Your task to perform on an android device: Go to Reddit.com Image 0: 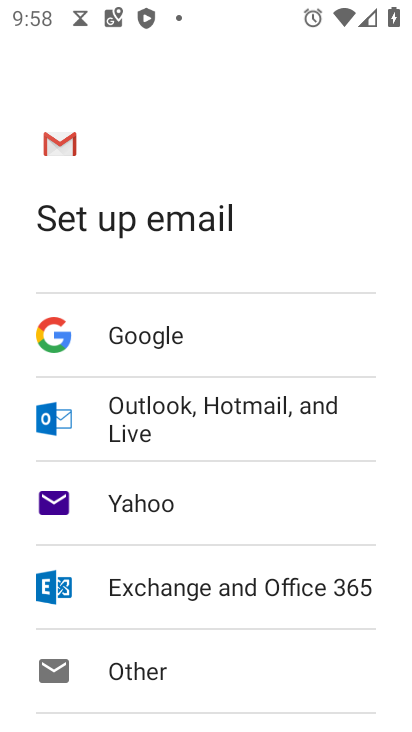
Step 0: press back button
Your task to perform on an android device: Go to Reddit.com Image 1: 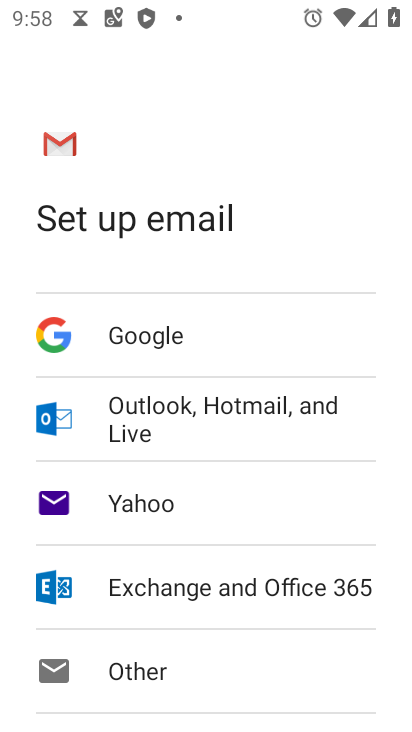
Step 1: press back button
Your task to perform on an android device: Go to Reddit.com Image 2: 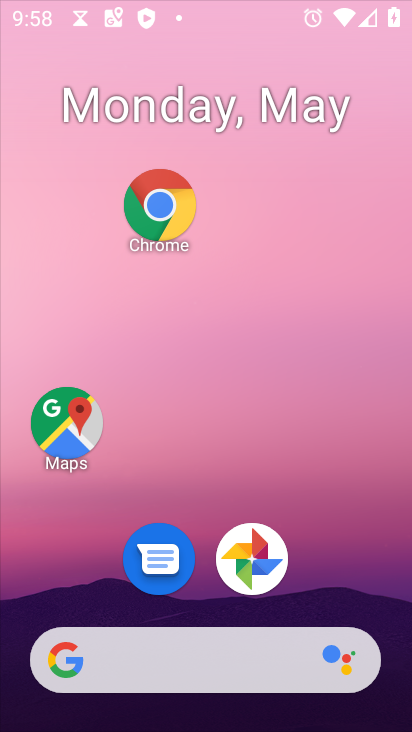
Step 2: press back button
Your task to perform on an android device: Go to Reddit.com Image 3: 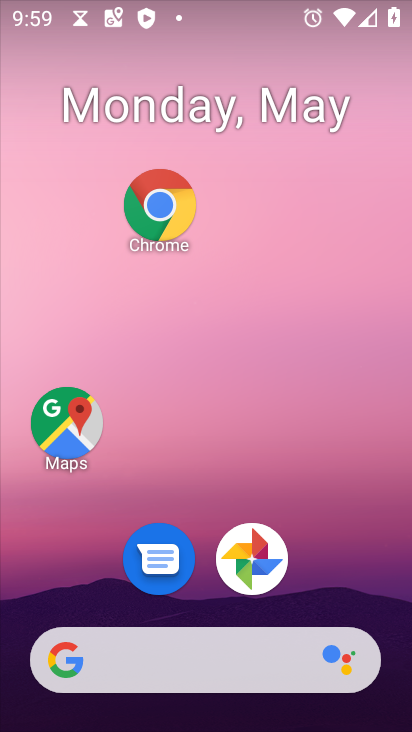
Step 3: drag from (285, 692) to (213, 90)
Your task to perform on an android device: Go to Reddit.com Image 4: 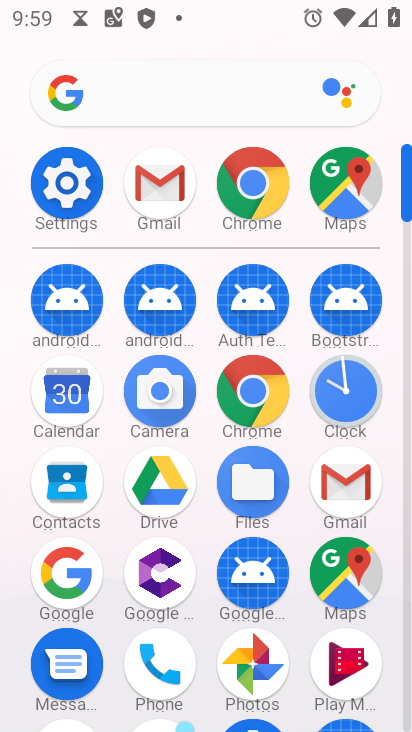
Step 4: click (248, 184)
Your task to perform on an android device: Go to Reddit.com Image 5: 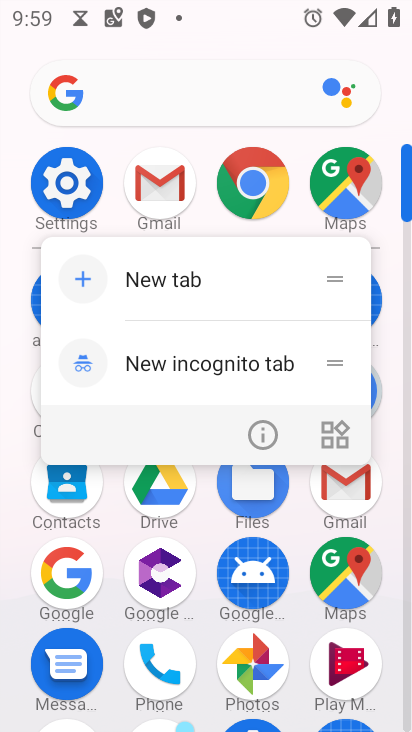
Step 5: click (251, 184)
Your task to perform on an android device: Go to Reddit.com Image 6: 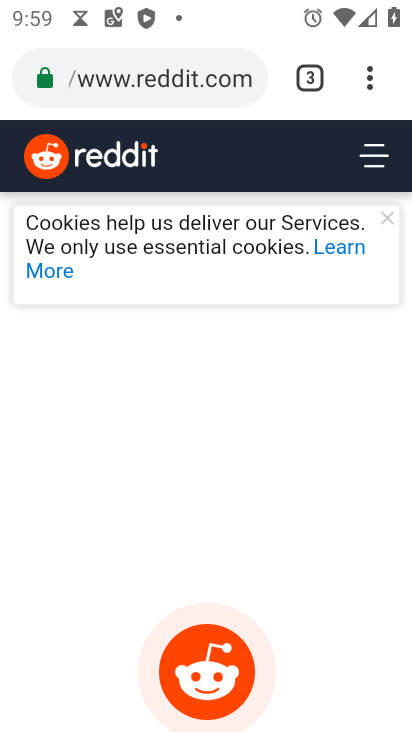
Step 6: task complete